Your task to perform on an android device: Open Yahoo.com Image 0: 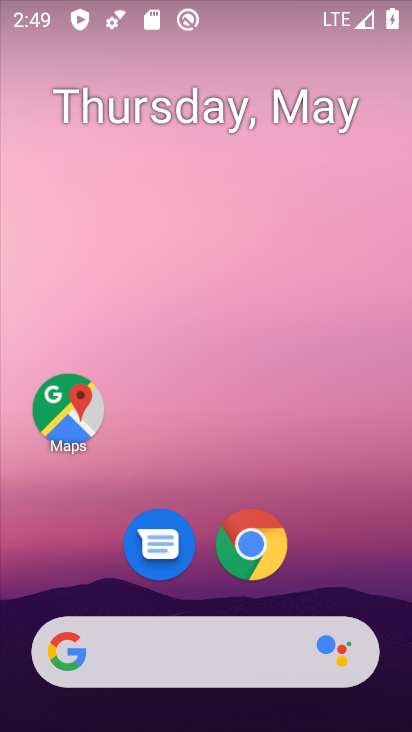
Step 0: click (183, 638)
Your task to perform on an android device: Open Yahoo.com Image 1: 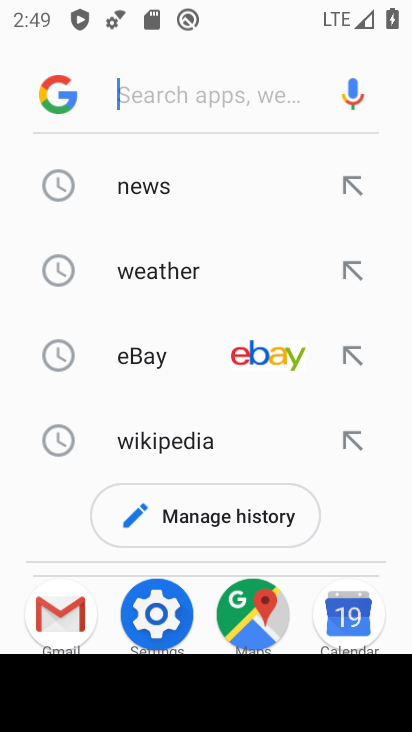
Step 1: type "yahoo.com"
Your task to perform on an android device: Open Yahoo.com Image 2: 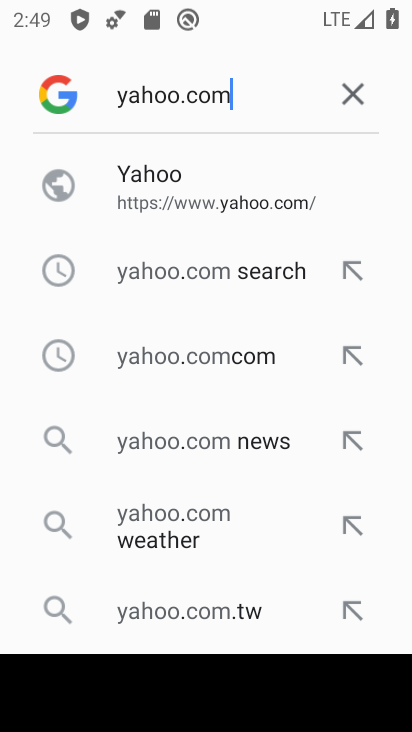
Step 2: click (182, 204)
Your task to perform on an android device: Open Yahoo.com Image 3: 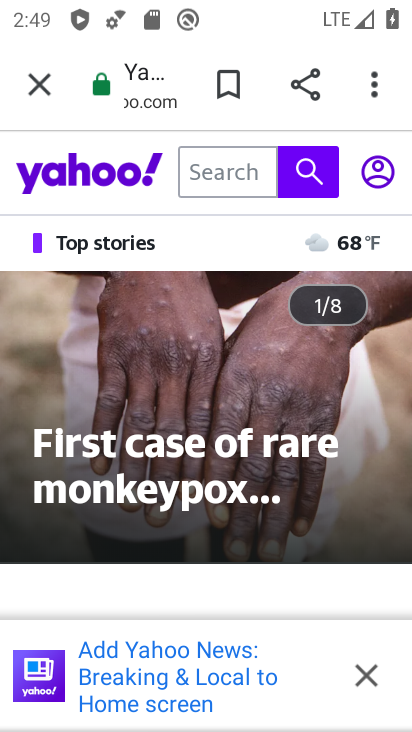
Step 3: task complete